Your task to perform on an android device: delete browsing data in the chrome app Image 0: 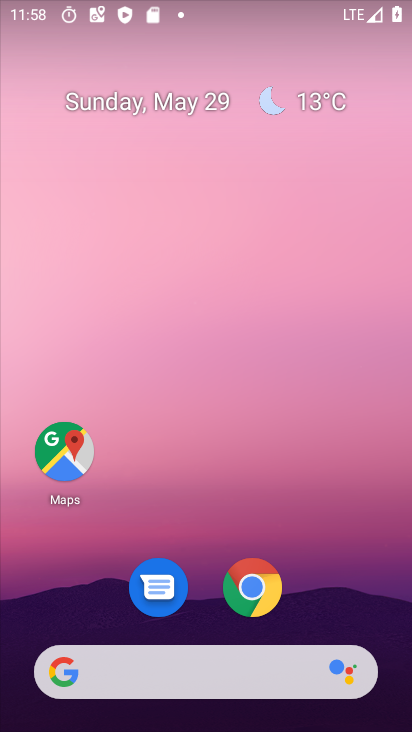
Step 0: click (255, 581)
Your task to perform on an android device: delete browsing data in the chrome app Image 1: 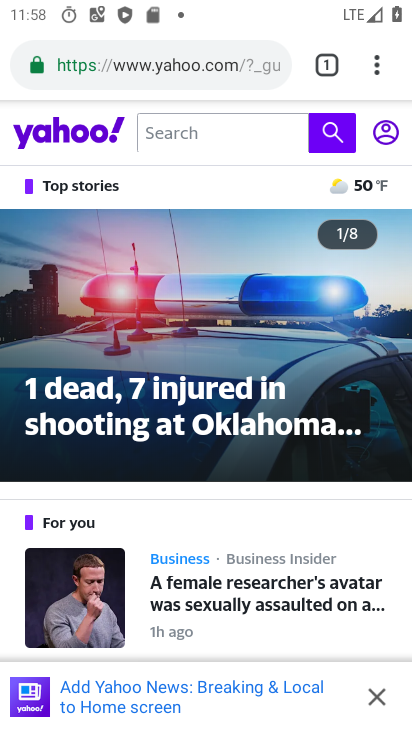
Step 1: drag from (377, 36) to (211, 383)
Your task to perform on an android device: delete browsing data in the chrome app Image 2: 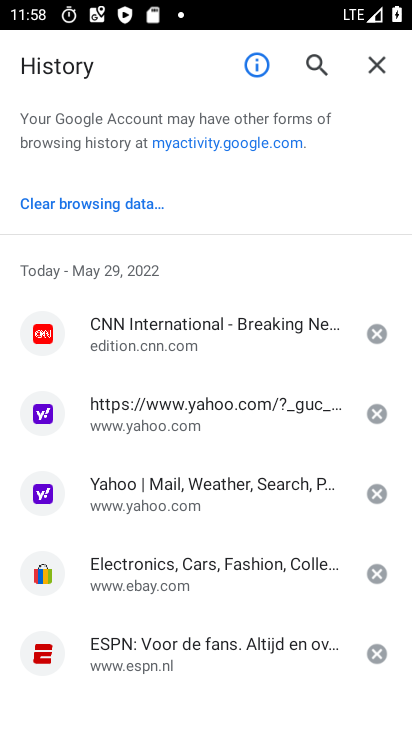
Step 2: click (99, 216)
Your task to perform on an android device: delete browsing data in the chrome app Image 3: 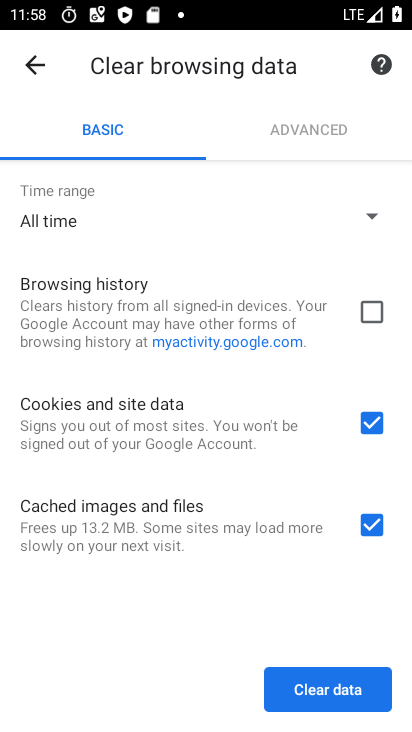
Step 3: click (375, 303)
Your task to perform on an android device: delete browsing data in the chrome app Image 4: 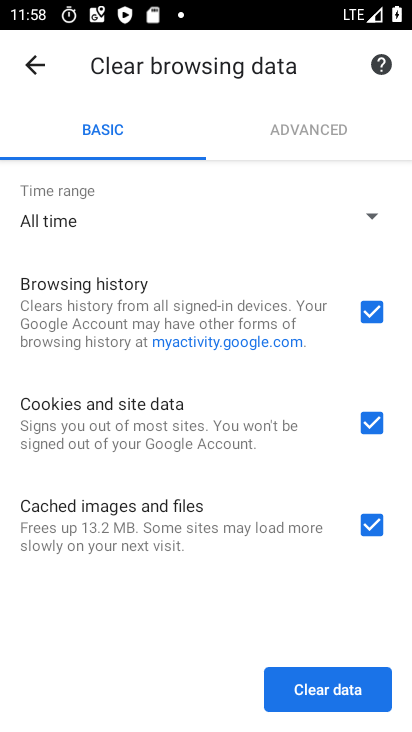
Step 4: click (378, 702)
Your task to perform on an android device: delete browsing data in the chrome app Image 5: 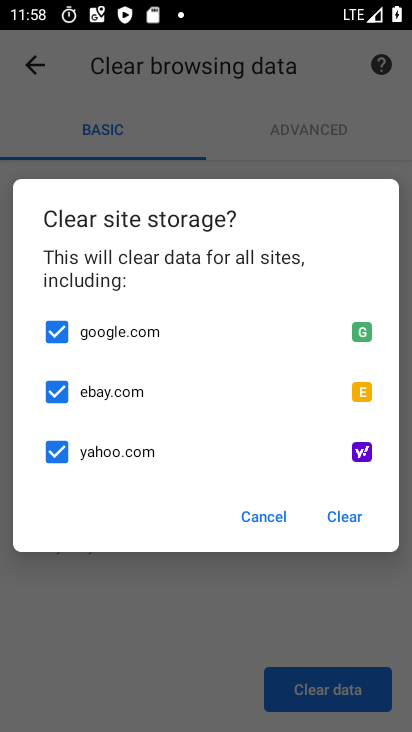
Step 5: click (348, 510)
Your task to perform on an android device: delete browsing data in the chrome app Image 6: 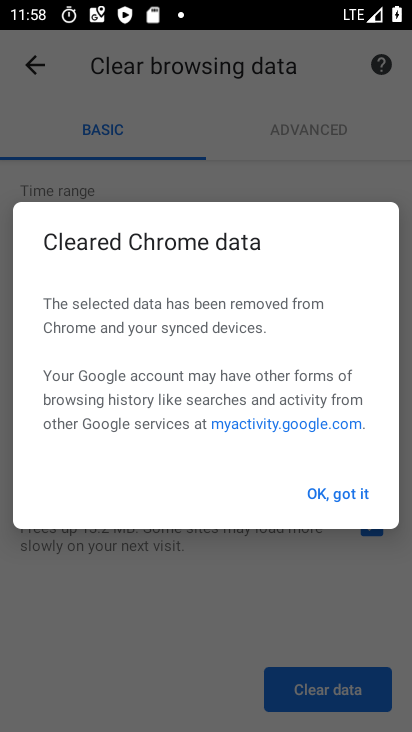
Step 6: click (358, 495)
Your task to perform on an android device: delete browsing data in the chrome app Image 7: 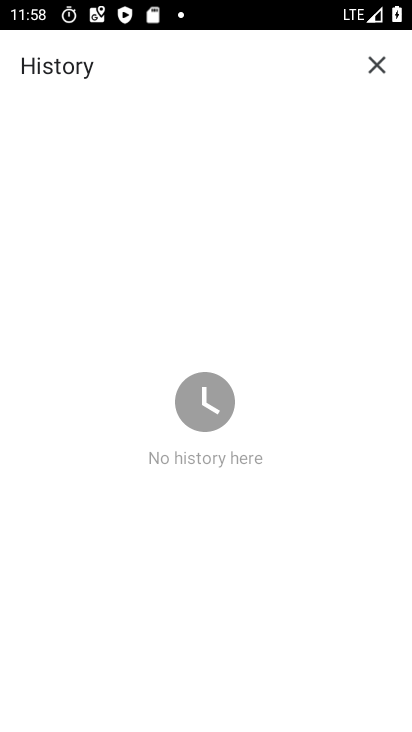
Step 7: task complete